Your task to perform on an android device: Go to wifi settings Image 0: 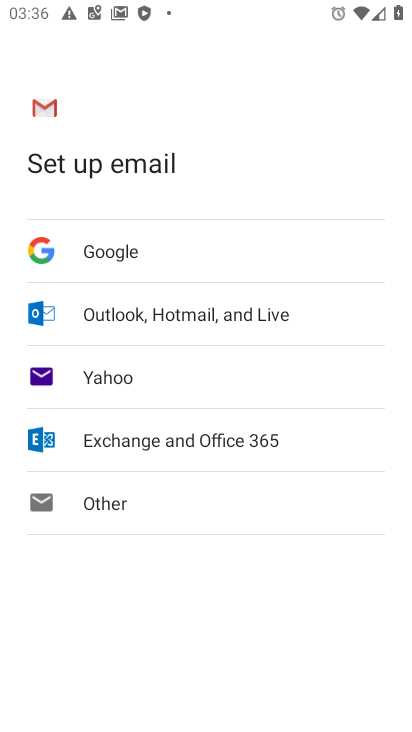
Step 0: press home button
Your task to perform on an android device: Go to wifi settings Image 1: 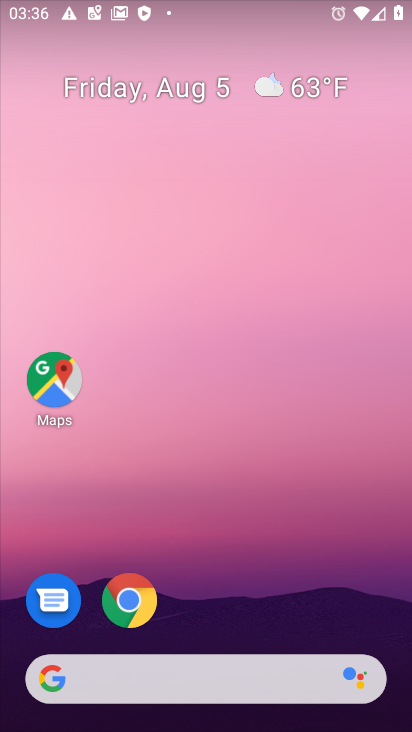
Step 1: drag from (188, 687) to (172, 213)
Your task to perform on an android device: Go to wifi settings Image 2: 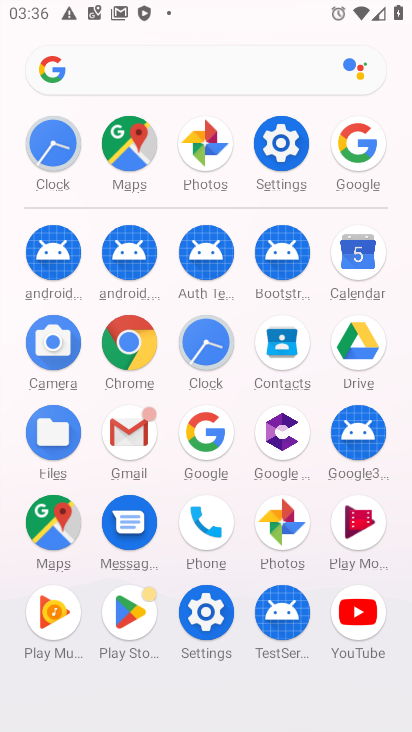
Step 2: click (280, 141)
Your task to perform on an android device: Go to wifi settings Image 3: 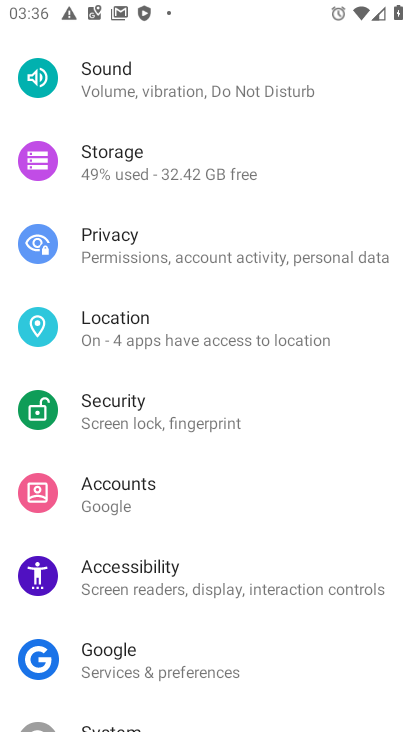
Step 3: drag from (245, 143) to (224, 251)
Your task to perform on an android device: Go to wifi settings Image 4: 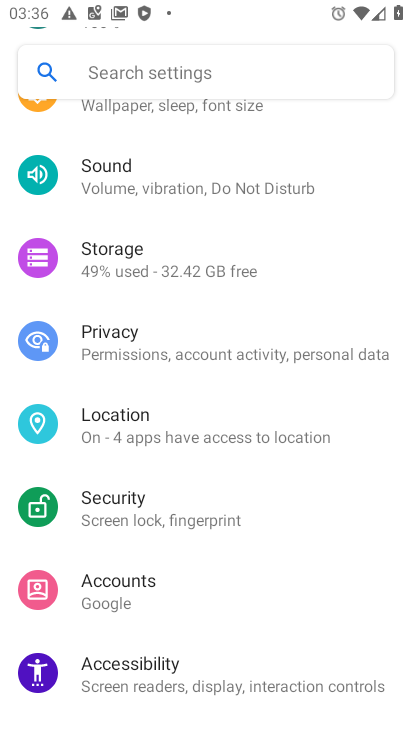
Step 4: drag from (244, 152) to (201, 318)
Your task to perform on an android device: Go to wifi settings Image 5: 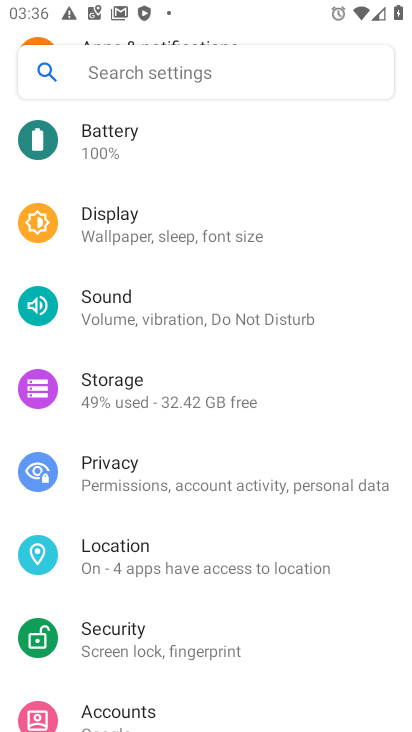
Step 5: drag from (209, 159) to (256, 570)
Your task to perform on an android device: Go to wifi settings Image 6: 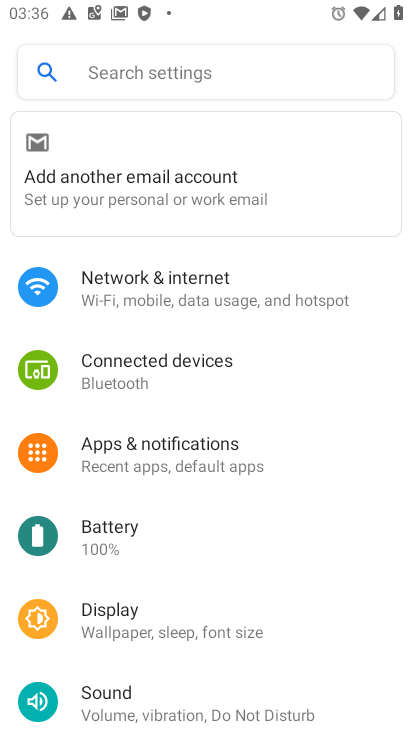
Step 6: click (195, 272)
Your task to perform on an android device: Go to wifi settings Image 7: 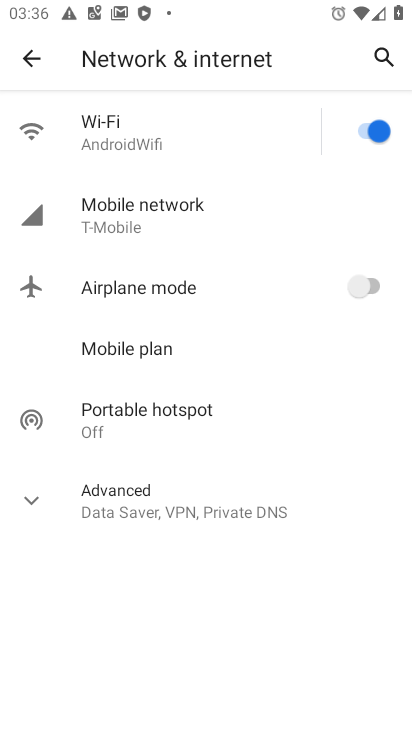
Step 7: click (121, 147)
Your task to perform on an android device: Go to wifi settings Image 8: 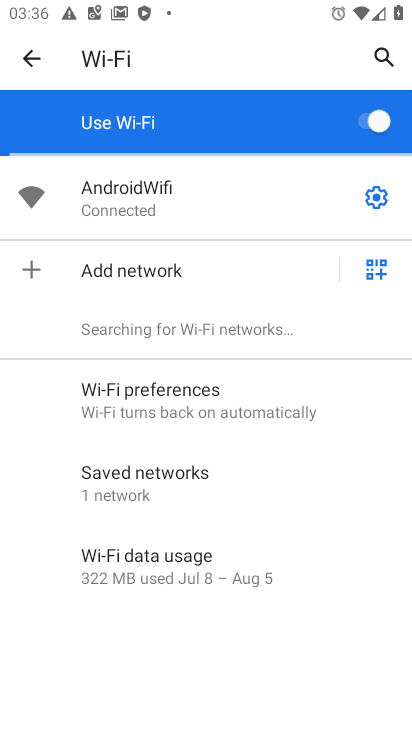
Step 8: click (376, 195)
Your task to perform on an android device: Go to wifi settings Image 9: 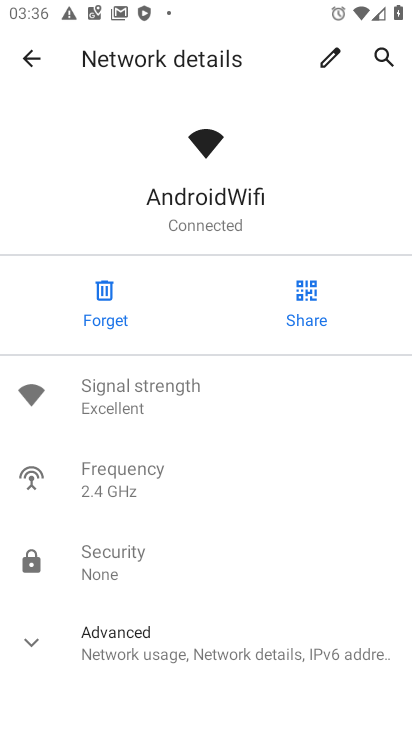
Step 9: task complete